Your task to perform on an android device: Open the map Image 0: 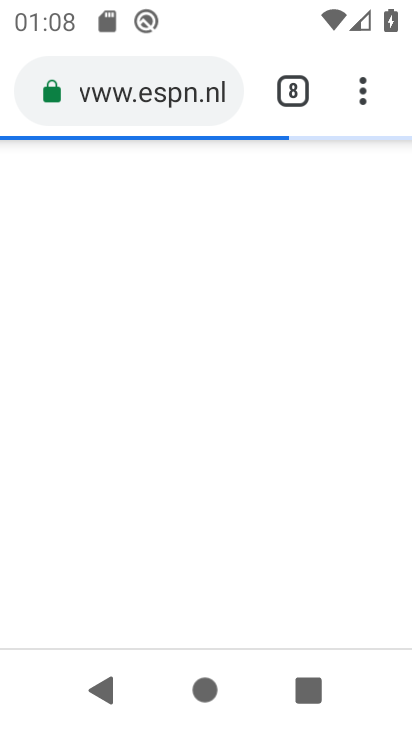
Step 0: press home button
Your task to perform on an android device: Open the map Image 1: 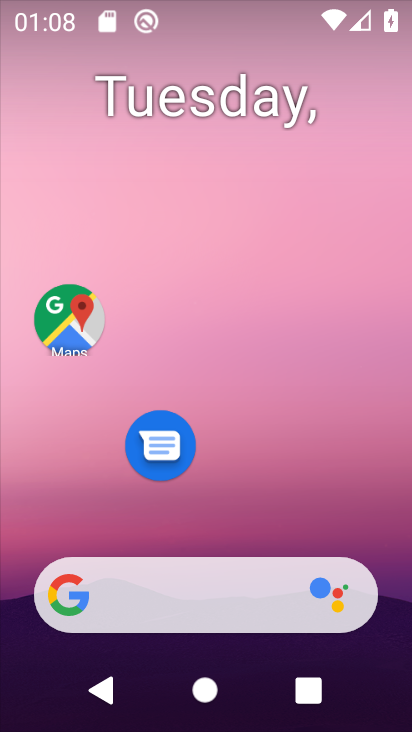
Step 1: click (62, 326)
Your task to perform on an android device: Open the map Image 2: 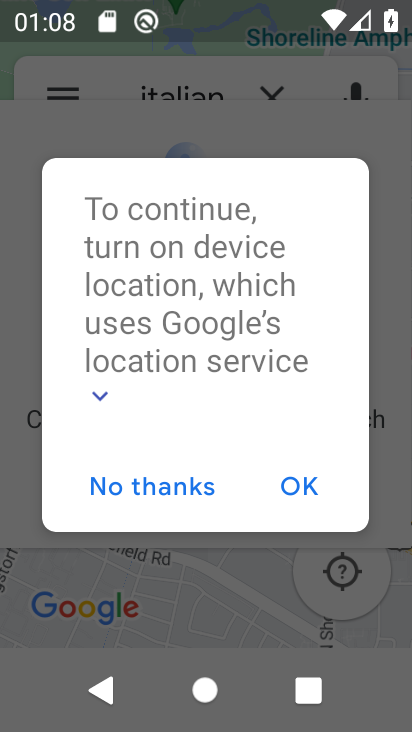
Step 2: click (284, 492)
Your task to perform on an android device: Open the map Image 3: 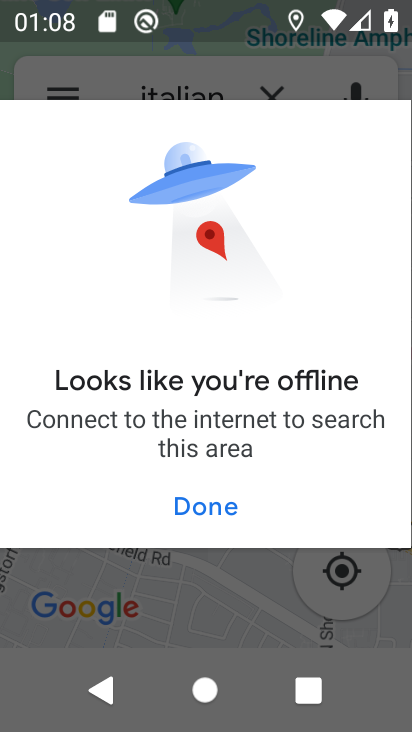
Step 3: click (195, 492)
Your task to perform on an android device: Open the map Image 4: 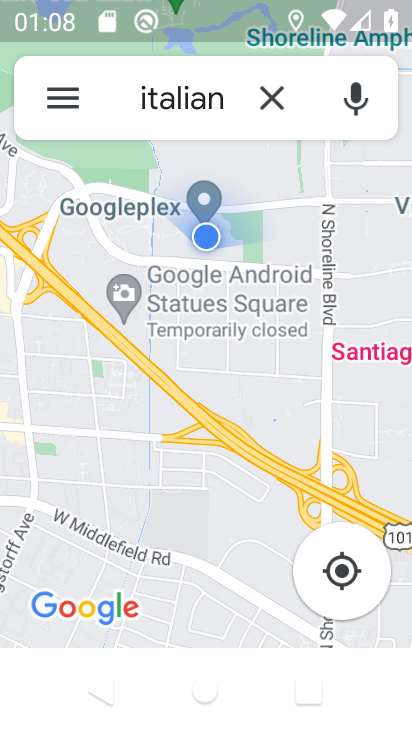
Step 4: task complete